Your task to perform on an android device: Go to display settings Image 0: 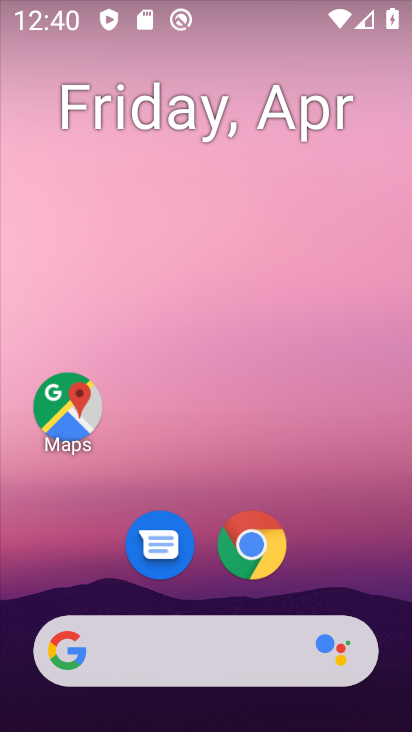
Step 0: drag from (332, 558) to (303, 106)
Your task to perform on an android device: Go to display settings Image 1: 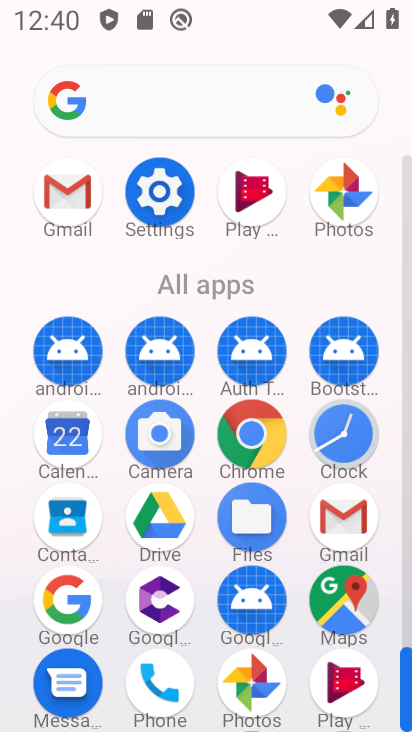
Step 1: click (170, 181)
Your task to perform on an android device: Go to display settings Image 2: 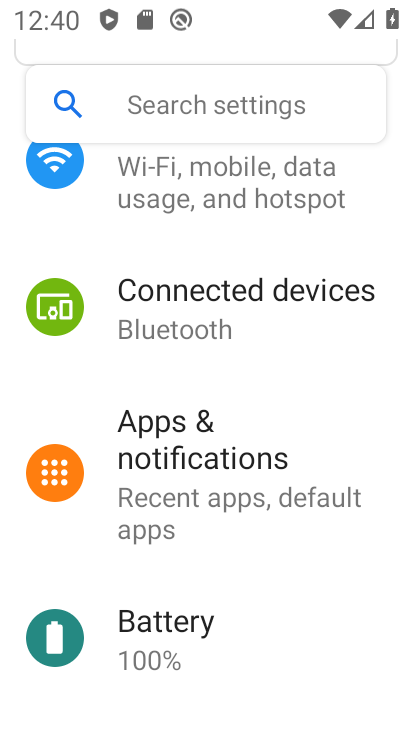
Step 2: drag from (272, 560) to (271, 348)
Your task to perform on an android device: Go to display settings Image 3: 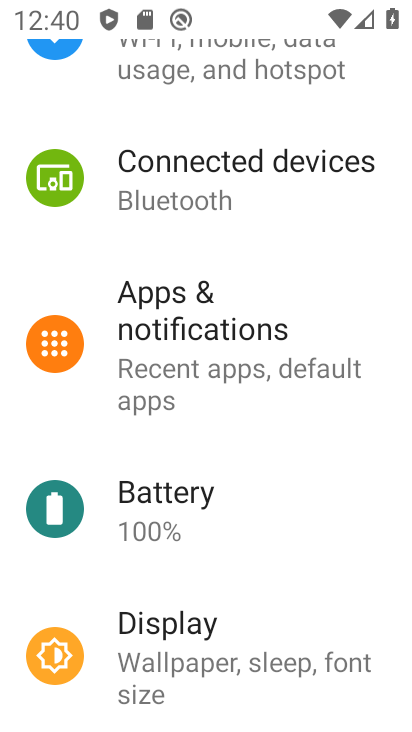
Step 3: click (211, 635)
Your task to perform on an android device: Go to display settings Image 4: 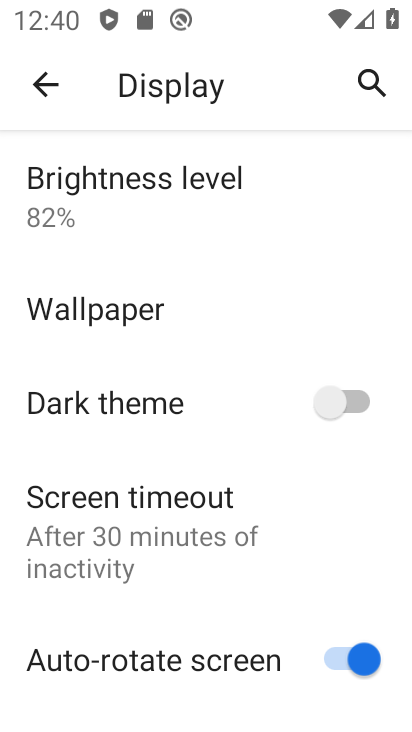
Step 4: task complete